Your task to perform on an android device: turn on bluetooth scan Image 0: 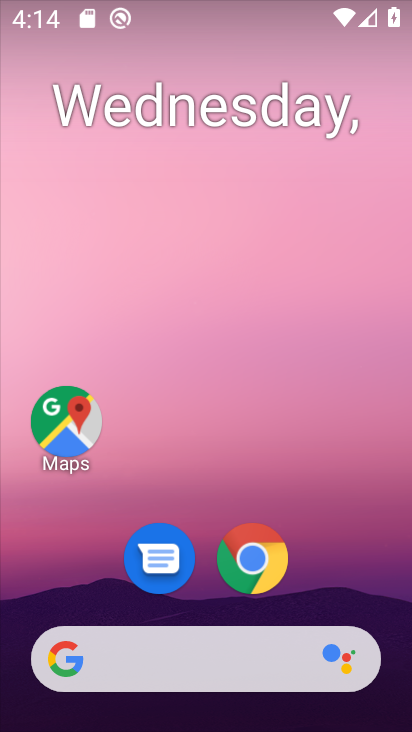
Step 0: drag from (330, 575) to (351, 225)
Your task to perform on an android device: turn on bluetooth scan Image 1: 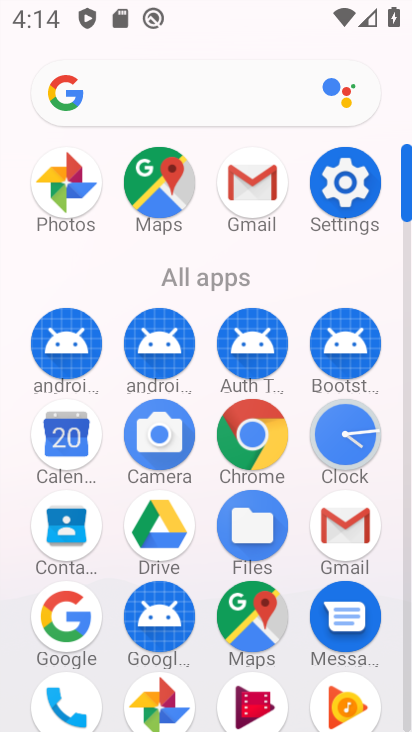
Step 1: click (345, 197)
Your task to perform on an android device: turn on bluetooth scan Image 2: 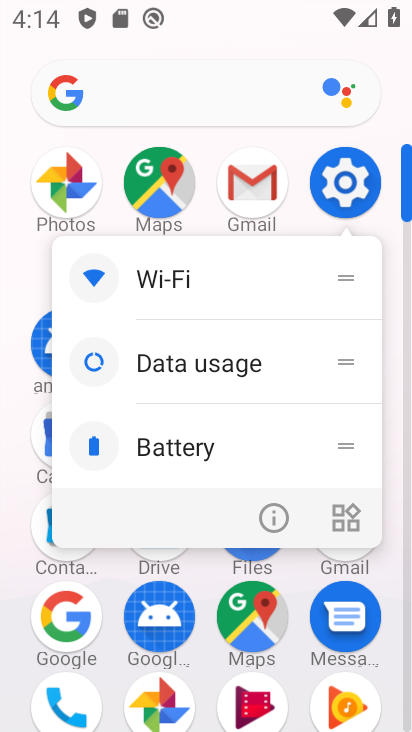
Step 2: click (344, 181)
Your task to perform on an android device: turn on bluetooth scan Image 3: 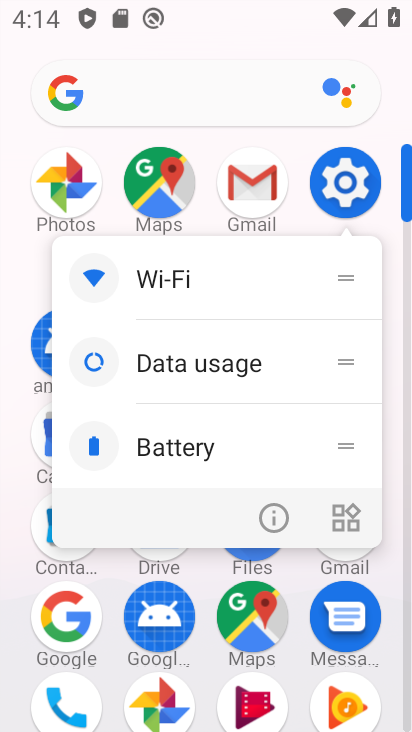
Step 3: click (350, 182)
Your task to perform on an android device: turn on bluetooth scan Image 4: 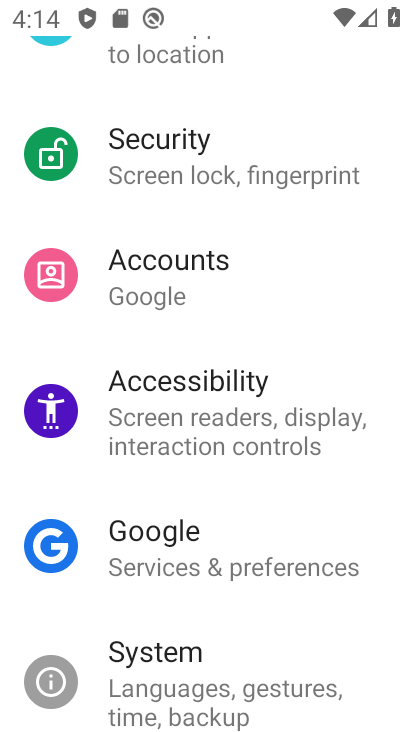
Step 4: drag from (388, 360) to (396, 456)
Your task to perform on an android device: turn on bluetooth scan Image 5: 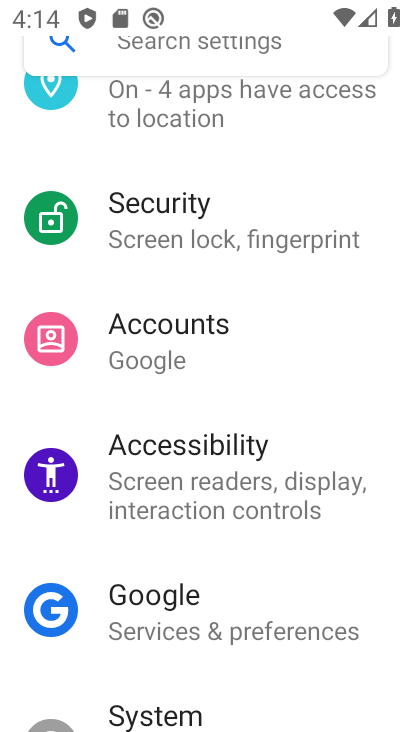
Step 5: drag from (373, 324) to (396, 472)
Your task to perform on an android device: turn on bluetooth scan Image 6: 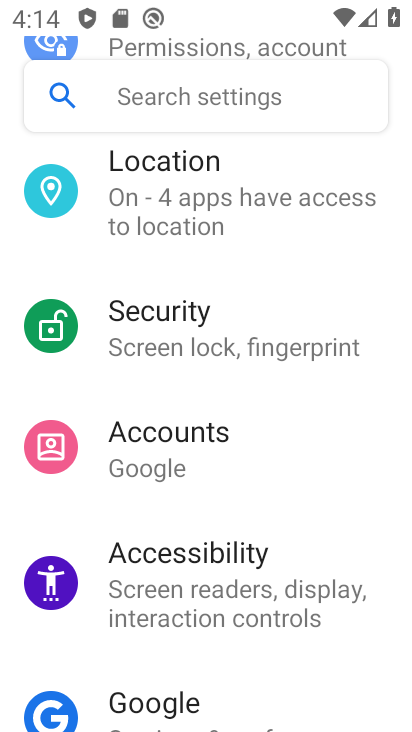
Step 6: drag from (381, 311) to (361, 502)
Your task to perform on an android device: turn on bluetooth scan Image 7: 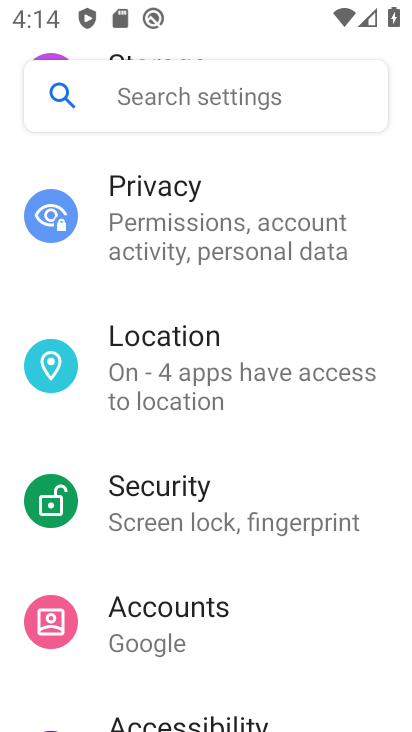
Step 7: drag from (386, 290) to (369, 445)
Your task to perform on an android device: turn on bluetooth scan Image 8: 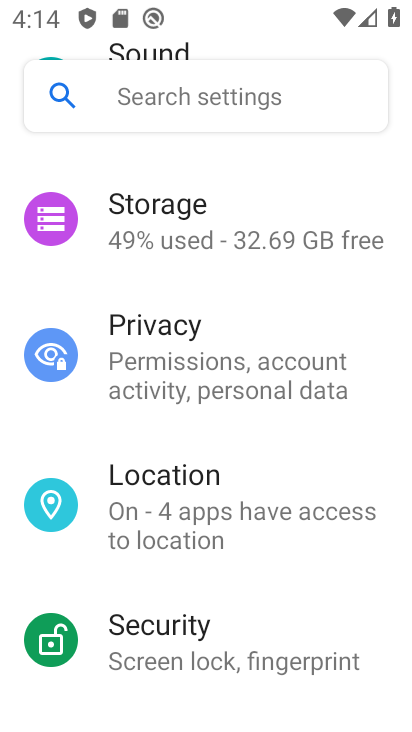
Step 8: click (255, 511)
Your task to perform on an android device: turn on bluetooth scan Image 9: 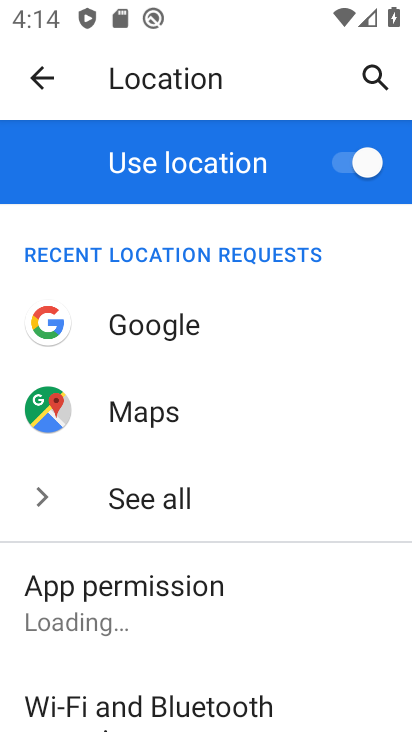
Step 9: drag from (305, 594) to (344, 454)
Your task to perform on an android device: turn on bluetooth scan Image 10: 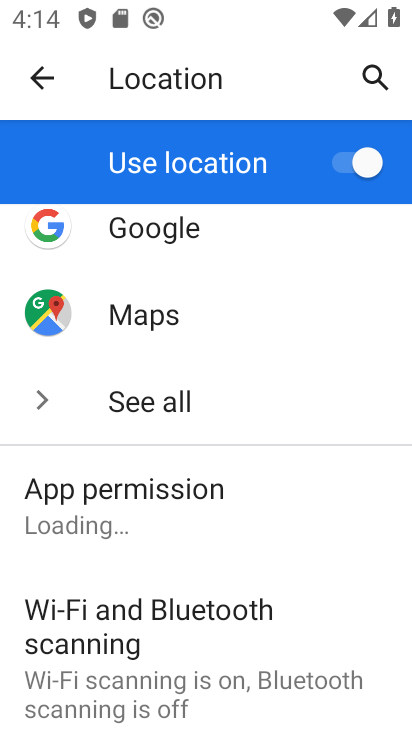
Step 10: drag from (338, 575) to (385, 397)
Your task to perform on an android device: turn on bluetooth scan Image 11: 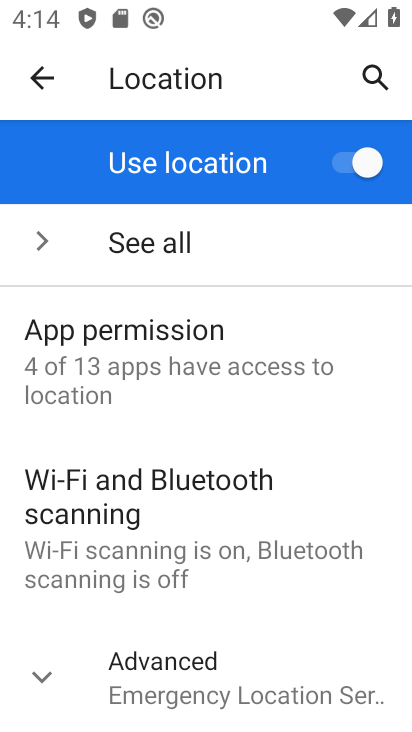
Step 11: click (221, 523)
Your task to perform on an android device: turn on bluetooth scan Image 12: 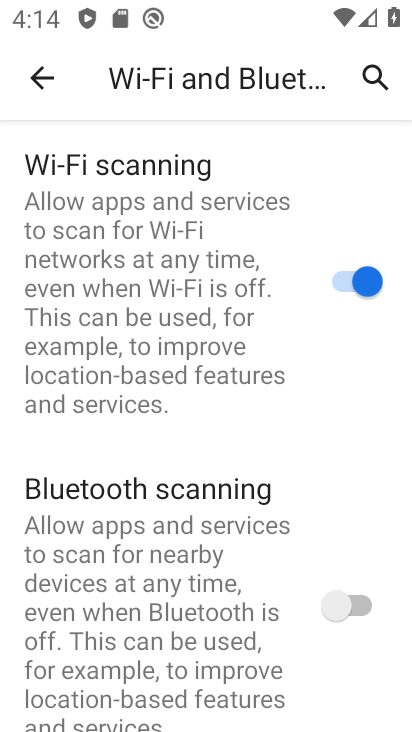
Step 12: click (337, 612)
Your task to perform on an android device: turn on bluetooth scan Image 13: 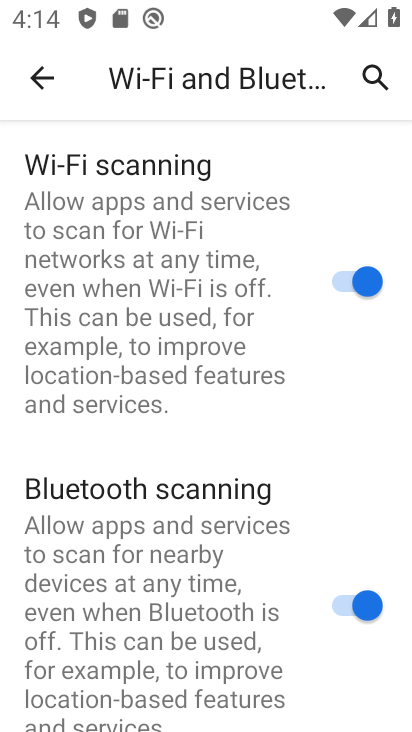
Step 13: task complete